Your task to perform on an android device: create a new album in the google photos Image 0: 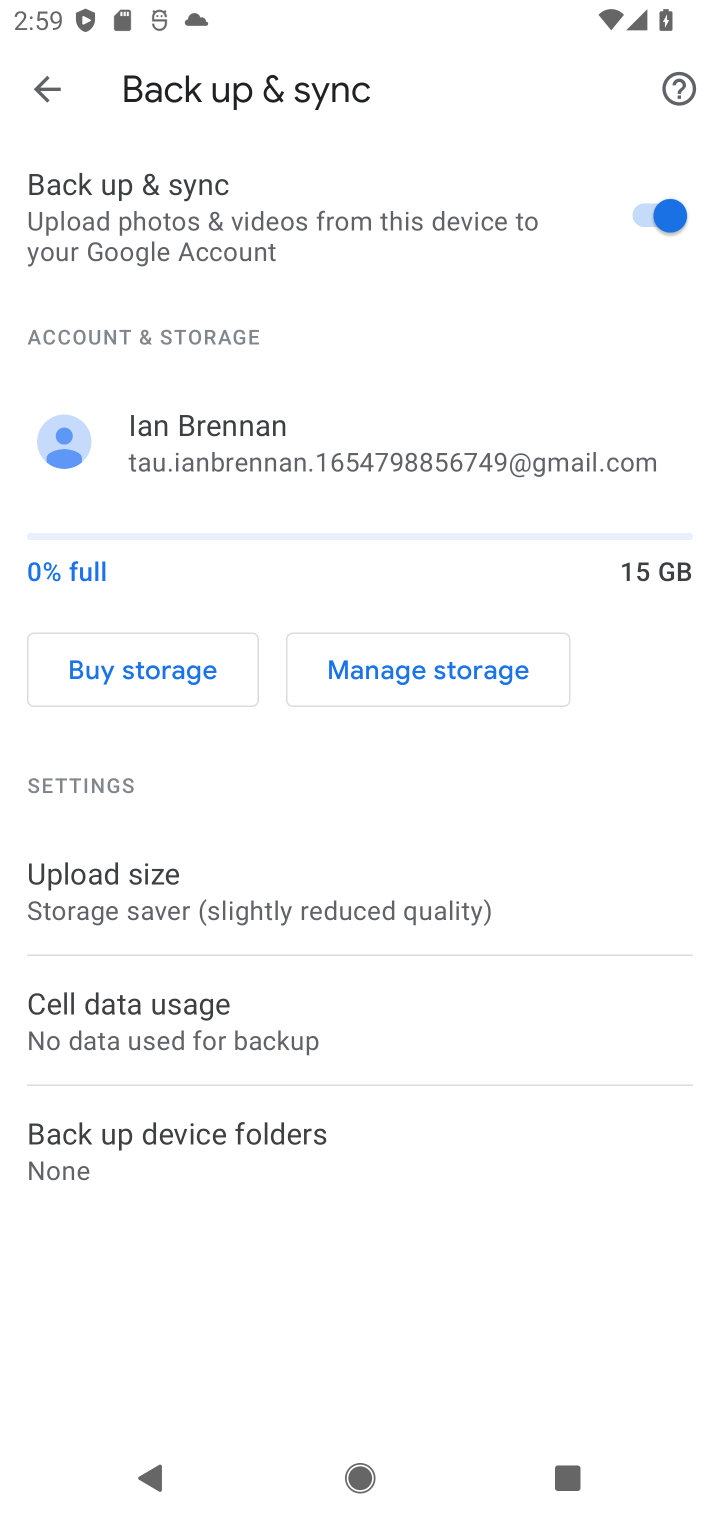
Step 0: press home button
Your task to perform on an android device: create a new album in the google photos Image 1: 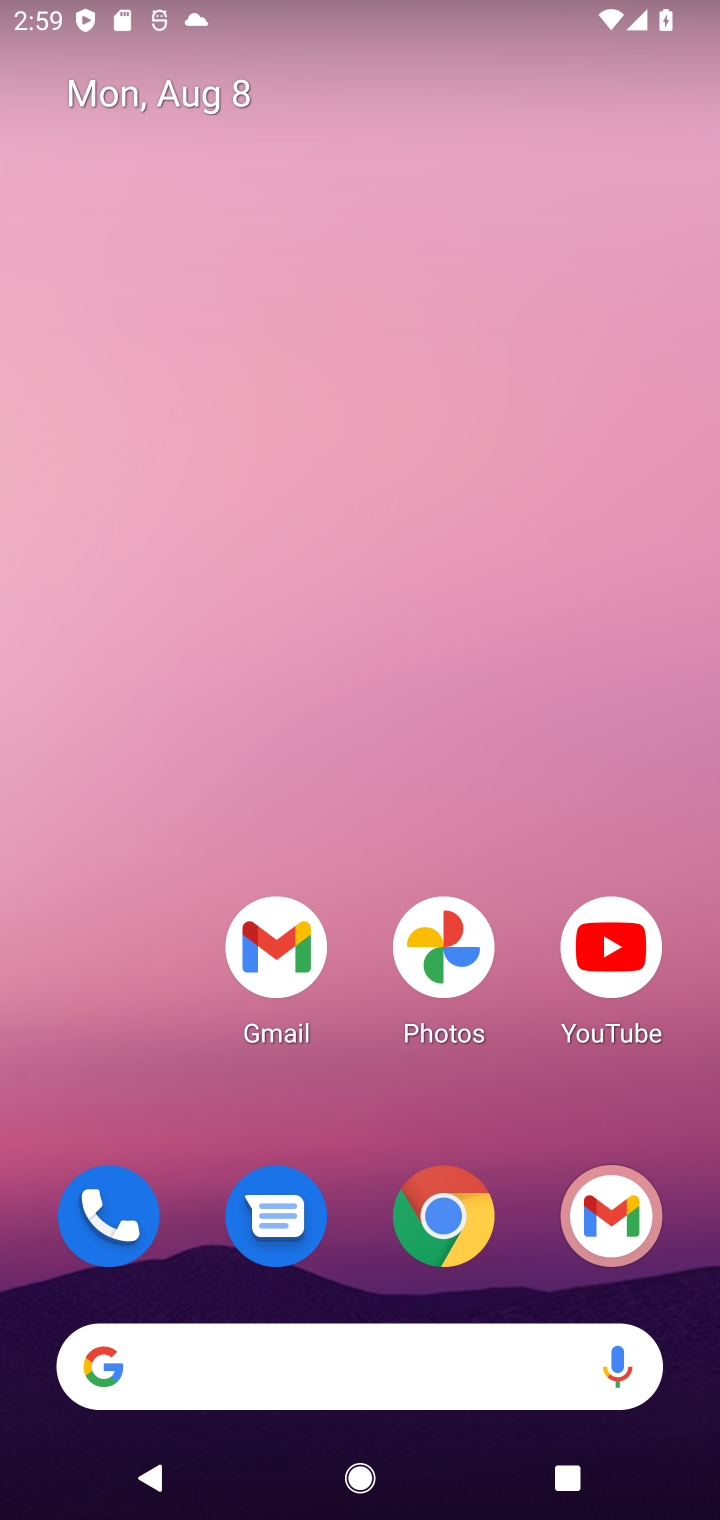
Step 1: click (449, 962)
Your task to perform on an android device: create a new album in the google photos Image 2: 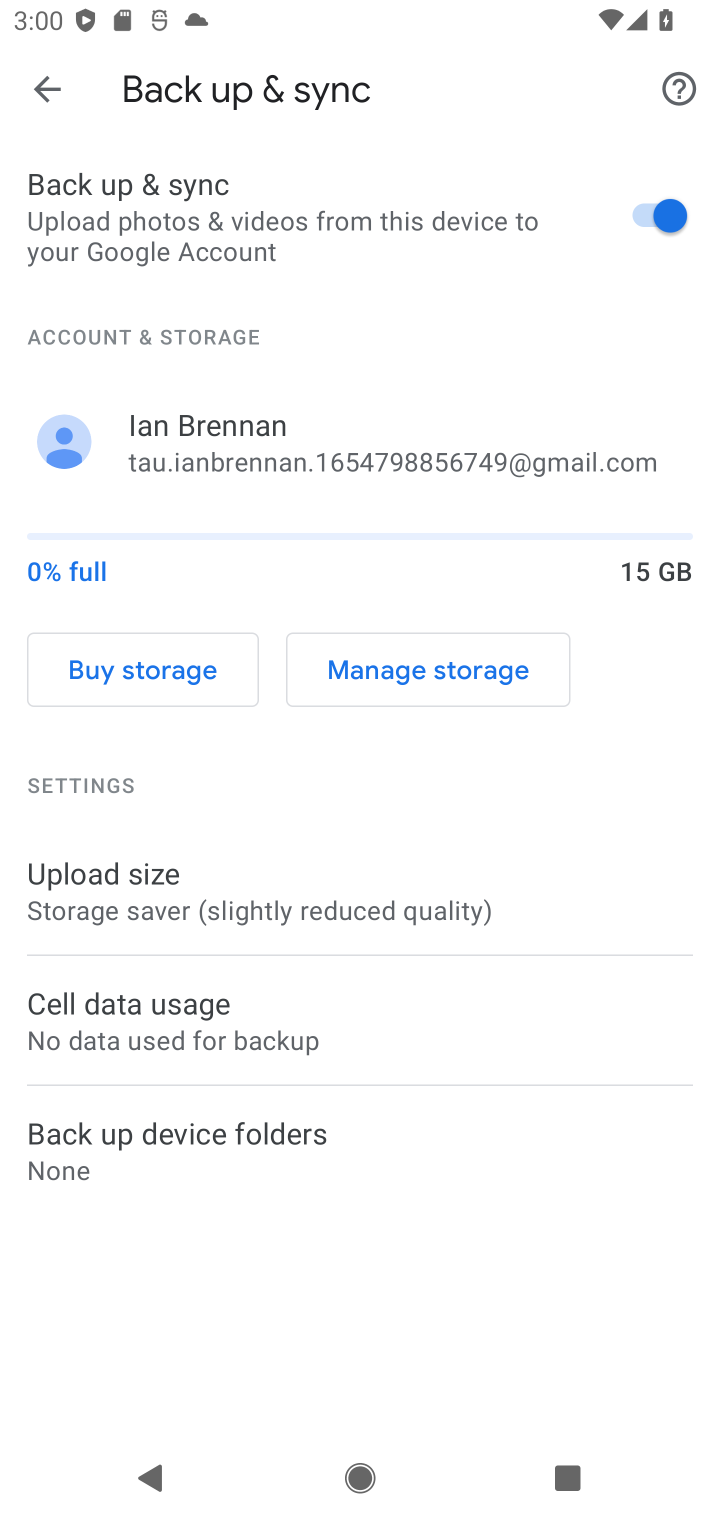
Step 2: click (59, 97)
Your task to perform on an android device: create a new album in the google photos Image 3: 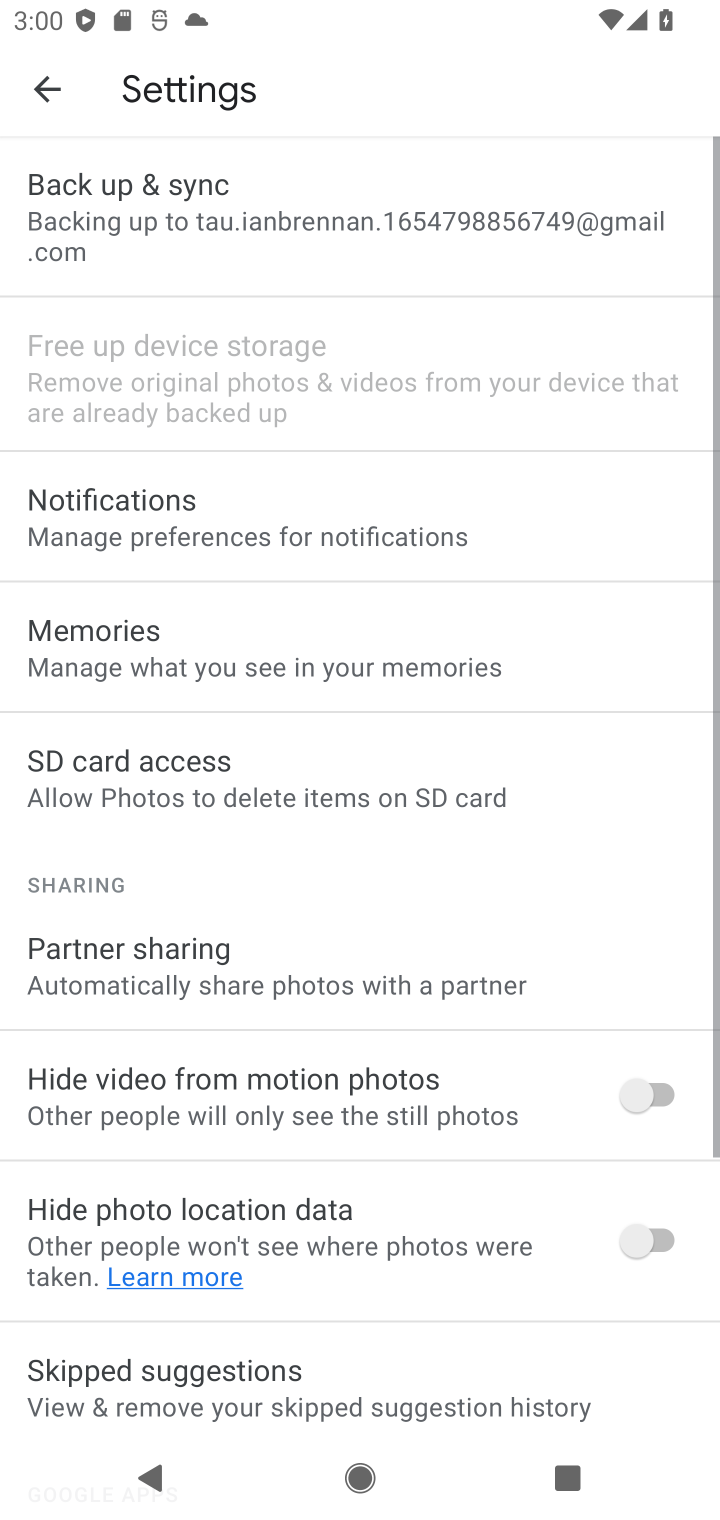
Step 3: click (59, 97)
Your task to perform on an android device: create a new album in the google photos Image 4: 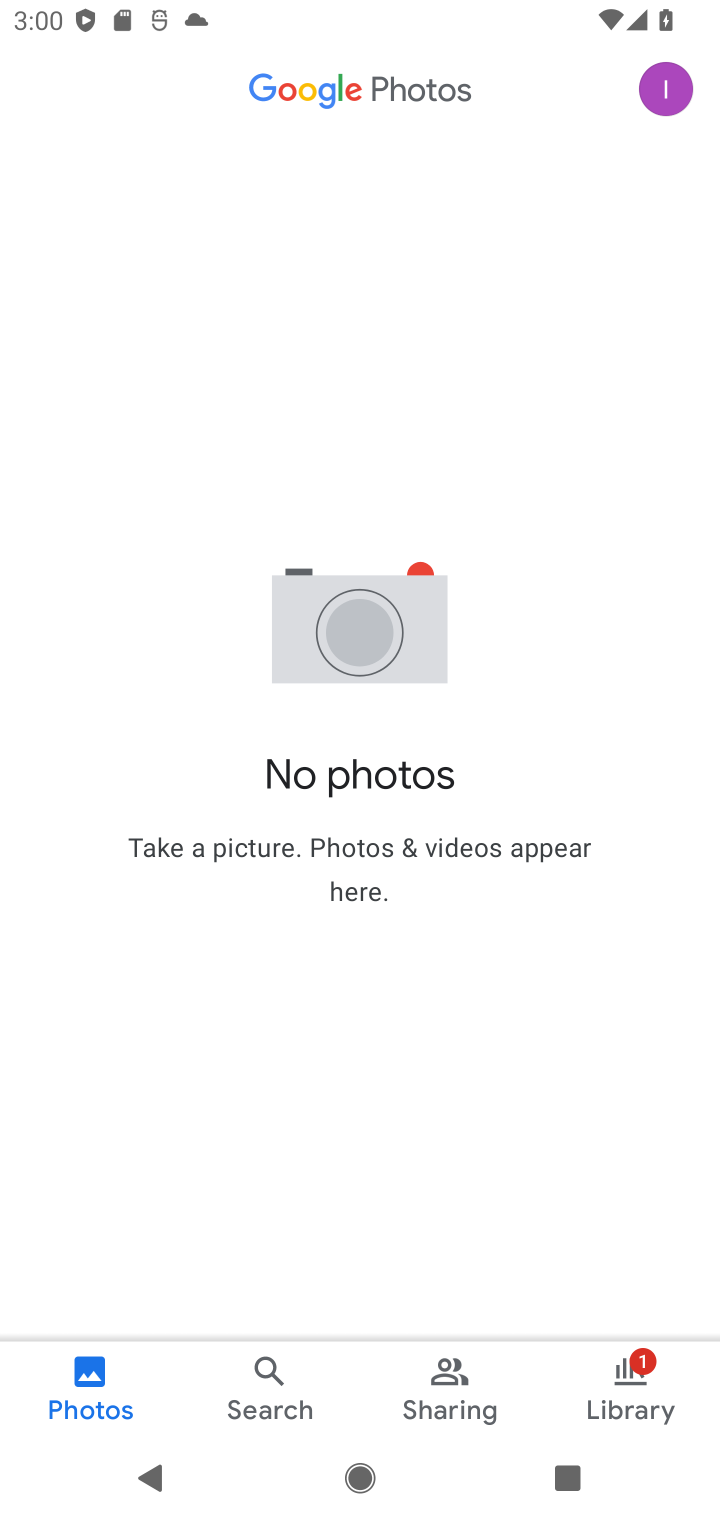
Step 4: click (644, 1405)
Your task to perform on an android device: create a new album in the google photos Image 5: 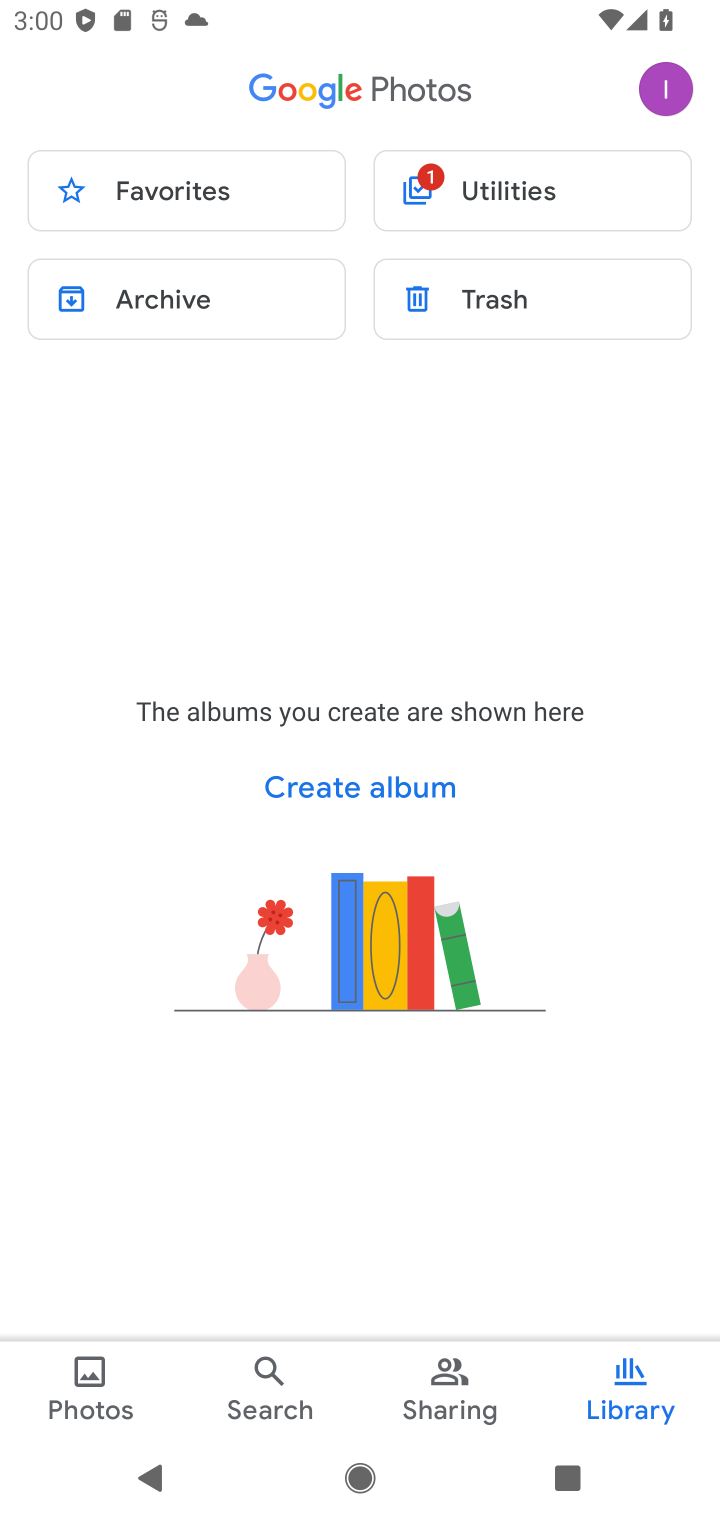
Step 5: click (391, 796)
Your task to perform on an android device: create a new album in the google photos Image 6: 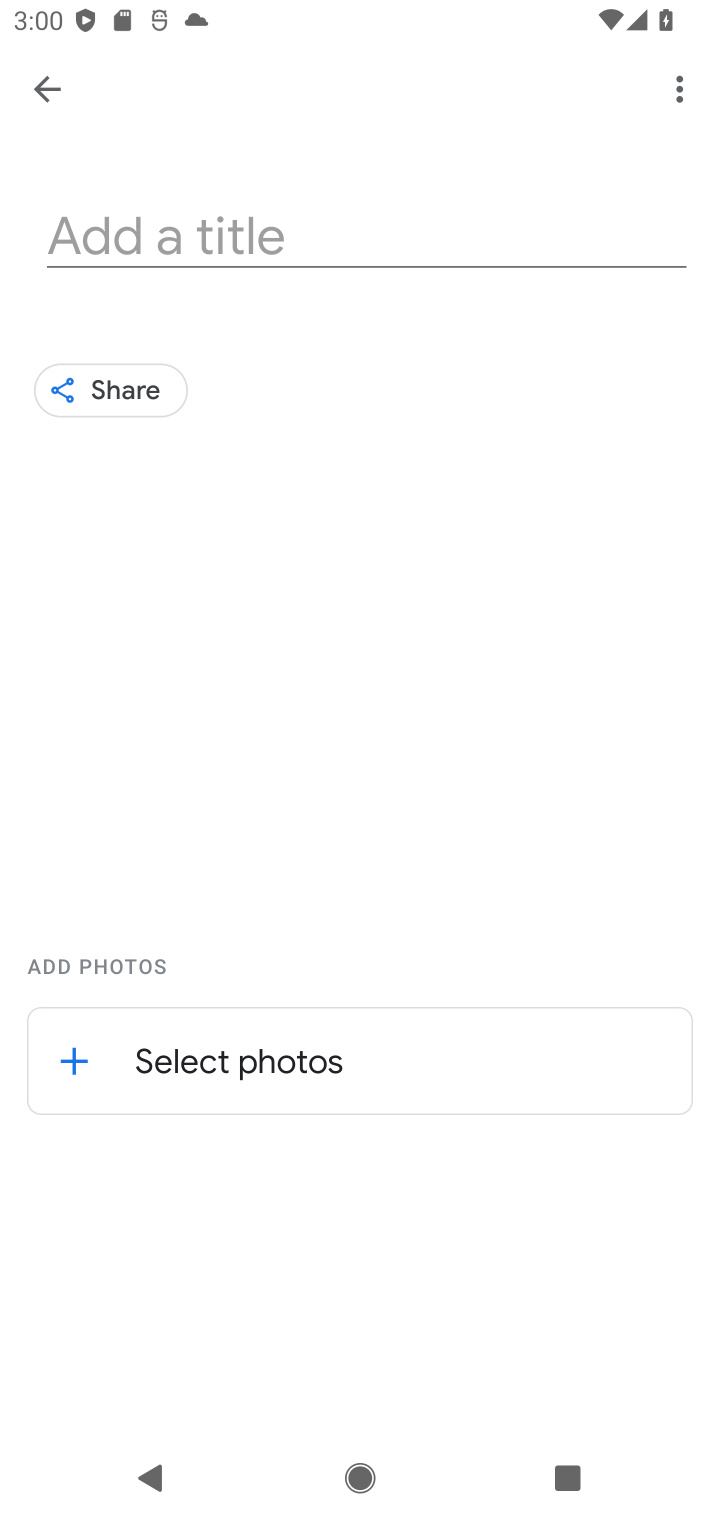
Step 6: click (373, 1056)
Your task to perform on an android device: create a new album in the google photos Image 7: 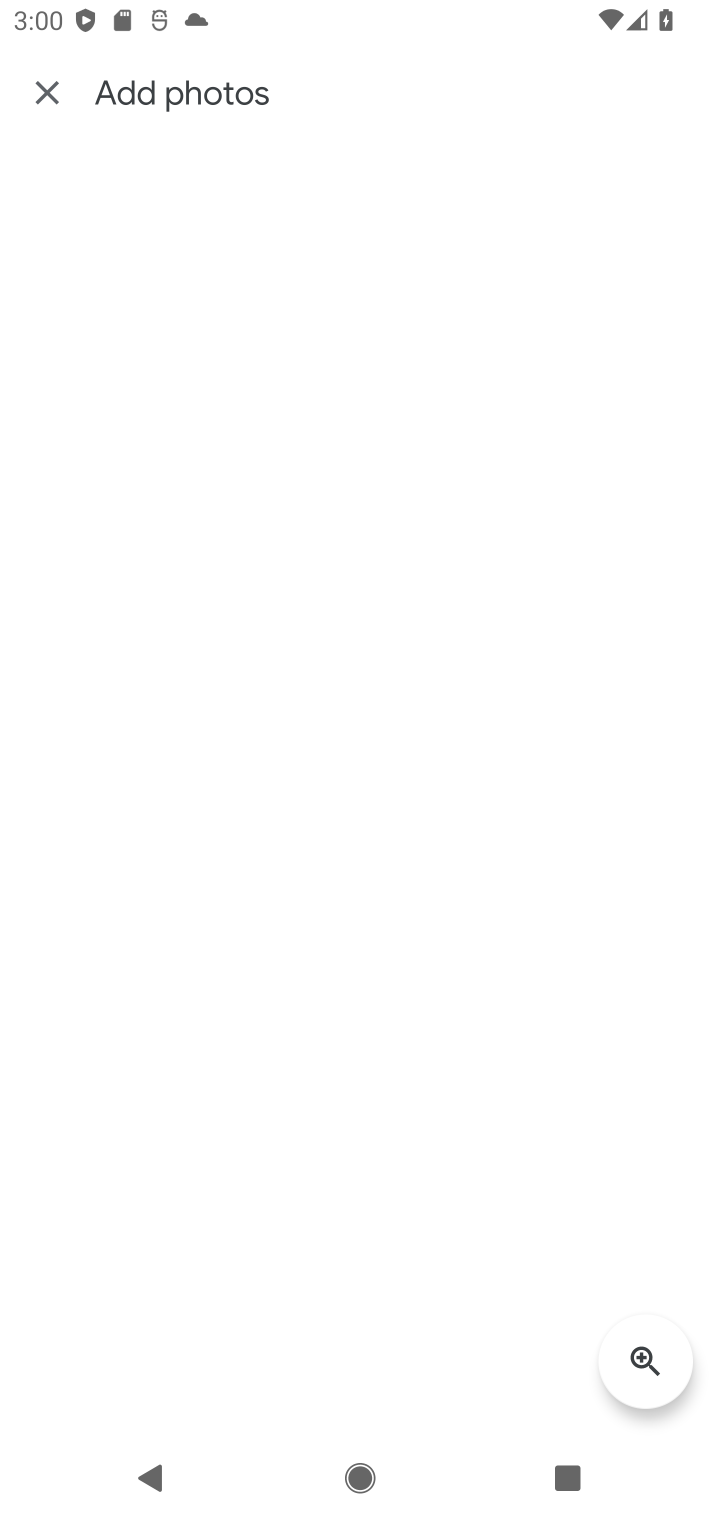
Step 7: task complete